Your task to perform on an android device: open app "Spotify" (install if not already installed) Image 0: 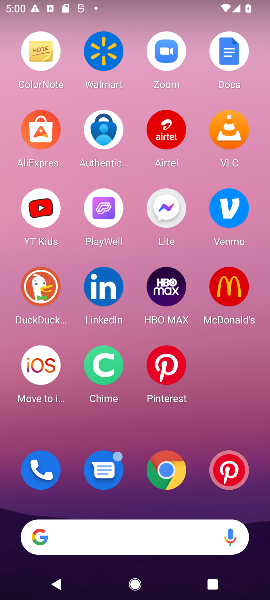
Step 0: drag from (124, 493) to (178, 0)
Your task to perform on an android device: open app "Spotify" (install if not already installed) Image 1: 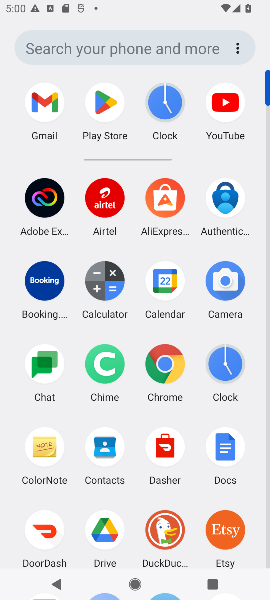
Step 1: click (103, 94)
Your task to perform on an android device: open app "Spotify" (install if not already installed) Image 2: 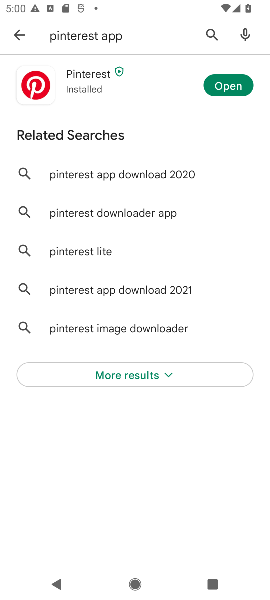
Step 2: click (18, 29)
Your task to perform on an android device: open app "Spotify" (install if not already installed) Image 3: 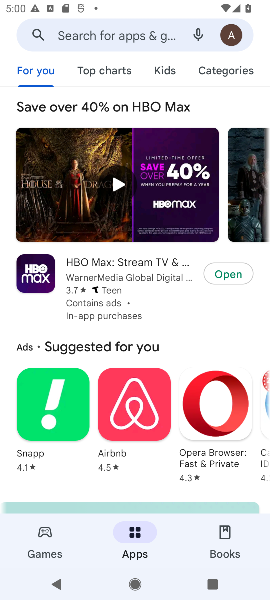
Step 3: click (73, 33)
Your task to perform on an android device: open app "Spotify" (install if not already installed) Image 4: 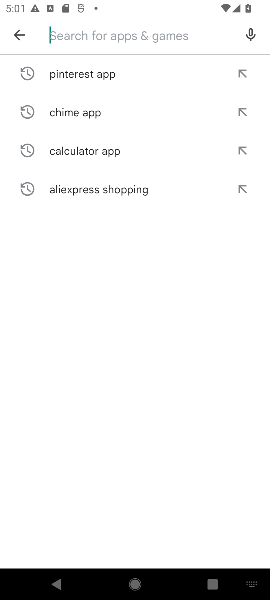
Step 4: type "spotify "
Your task to perform on an android device: open app "Spotify" (install if not already installed) Image 5: 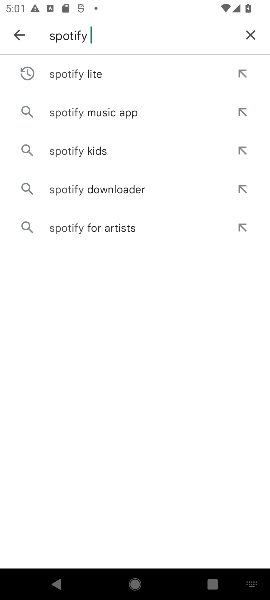
Step 5: click (99, 76)
Your task to perform on an android device: open app "Spotify" (install if not already installed) Image 6: 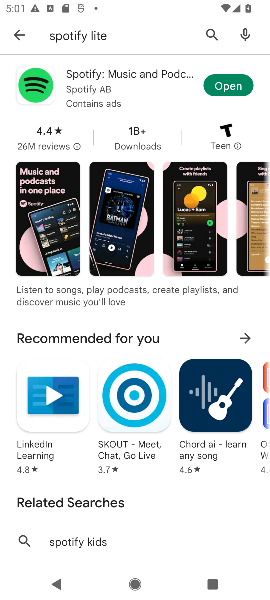
Step 6: click (216, 77)
Your task to perform on an android device: open app "Spotify" (install if not already installed) Image 7: 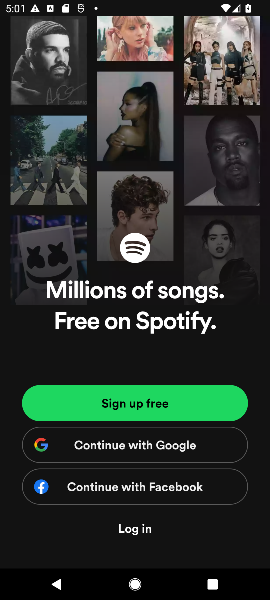
Step 7: task complete